Your task to perform on an android device: create a new album in the google photos Image 0: 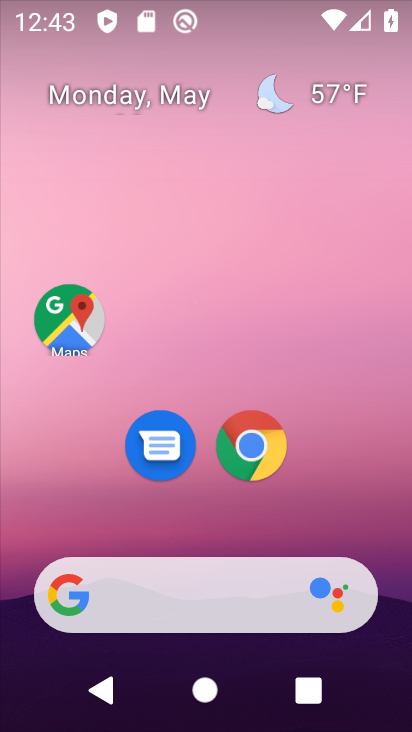
Step 0: drag from (383, 628) to (213, 63)
Your task to perform on an android device: create a new album in the google photos Image 1: 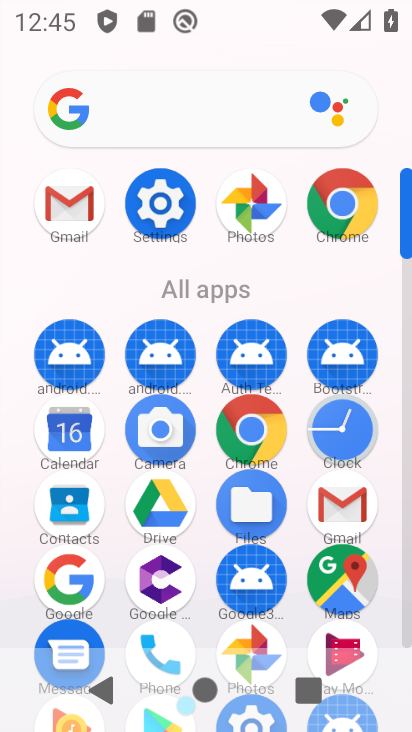
Step 1: click (258, 627)
Your task to perform on an android device: create a new album in the google photos Image 2: 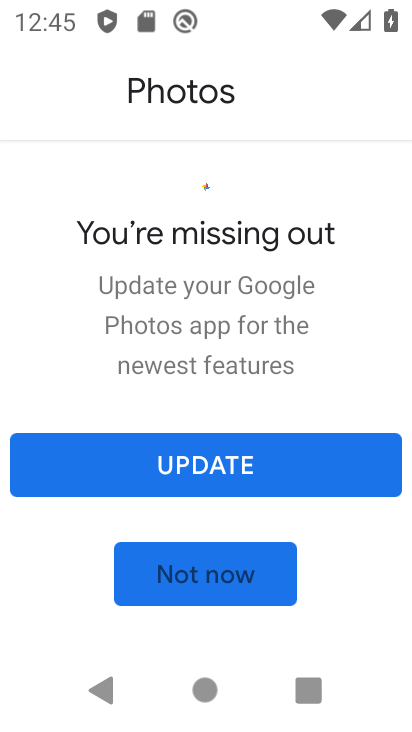
Step 2: click (206, 441)
Your task to perform on an android device: create a new album in the google photos Image 3: 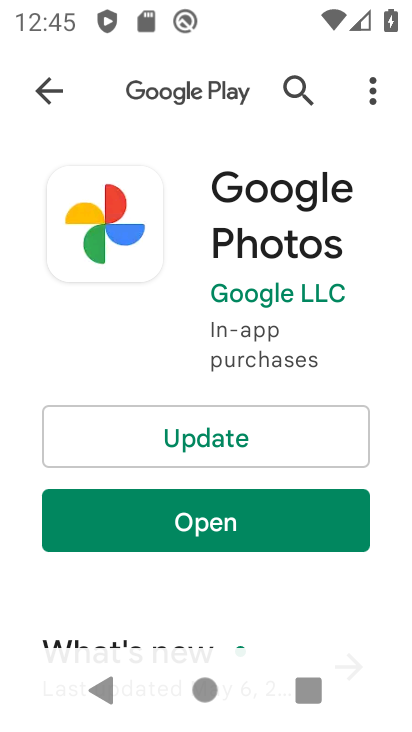
Step 3: click (226, 434)
Your task to perform on an android device: create a new album in the google photos Image 4: 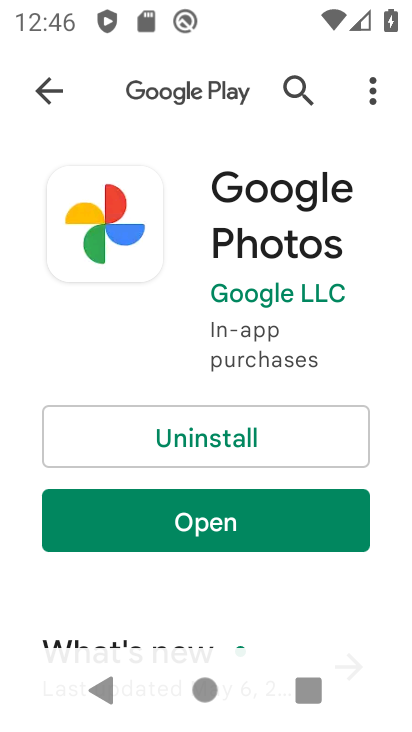
Step 4: click (230, 514)
Your task to perform on an android device: create a new album in the google photos Image 5: 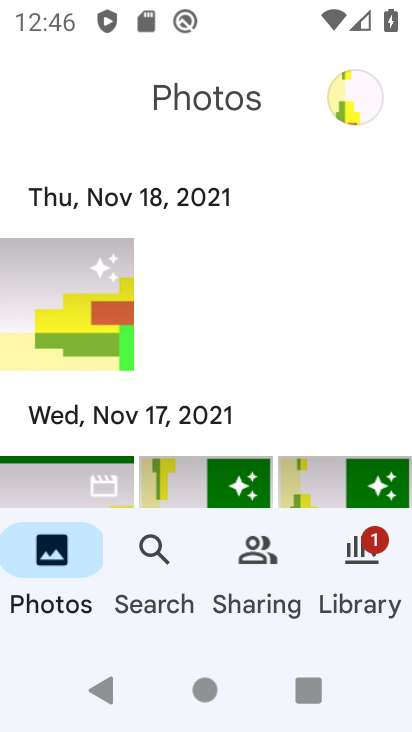
Step 5: click (76, 320)
Your task to perform on an android device: create a new album in the google photos Image 6: 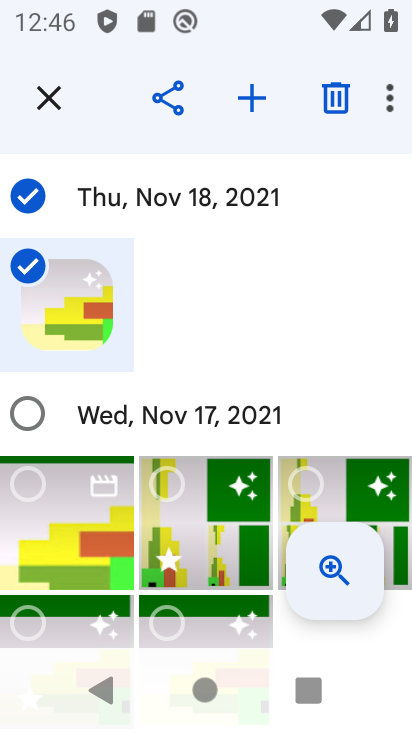
Step 6: click (260, 89)
Your task to perform on an android device: create a new album in the google photos Image 7: 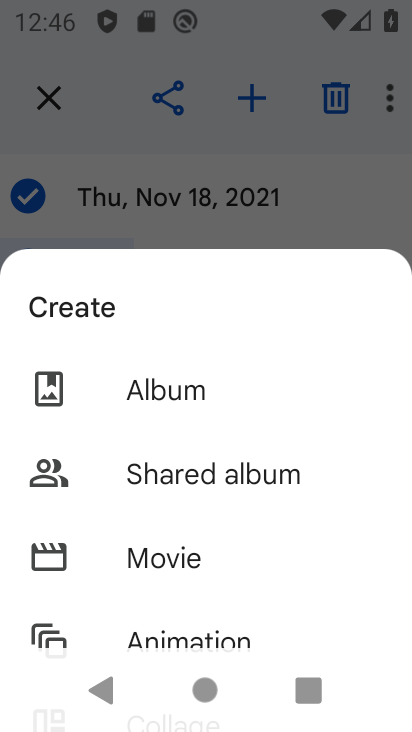
Step 7: click (212, 394)
Your task to perform on an android device: create a new album in the google photos Image 8: 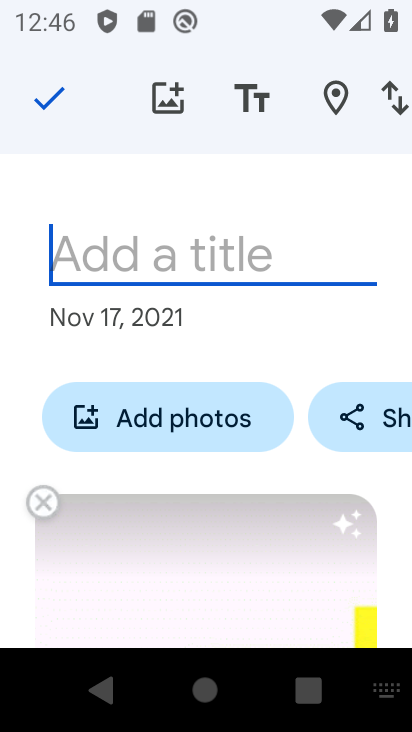
Step 8: type "CV"
Your task to perform on an android device: create a new album in the google photos Image 9: 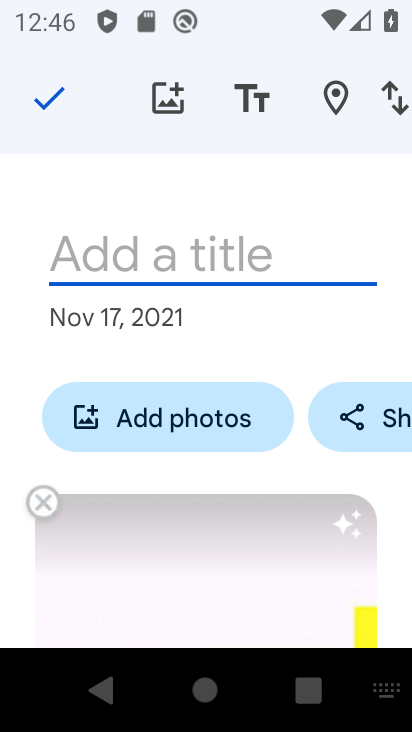
Step 9: click (52, 93)
Your task to perform on an android device: create a new album in the google photos Image 10: 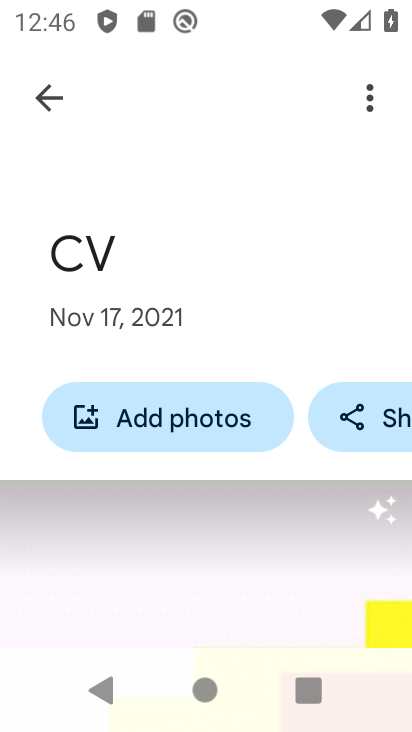
Step 10: task complete